Your task to perform on an android device: find which apps use the phone's location Image 0: 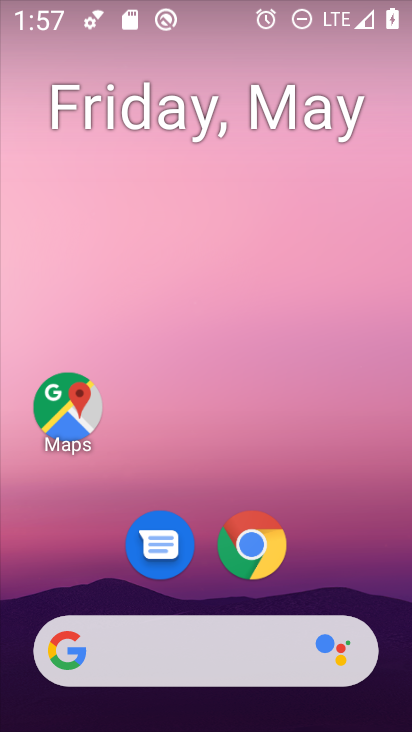
Step 0: drag from (334, 569) to (345, 223)
Your task to perform on an android device: find which apps use the phone's location Image 1: 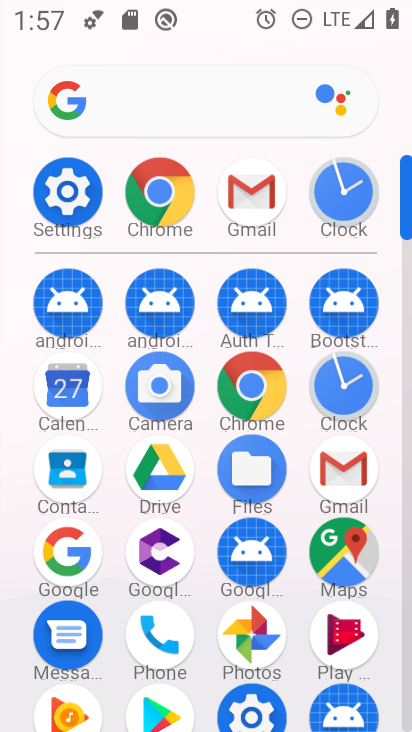
Step 1: click (62, 188)
Your task to perform on an android device: find which apps use the phone's location Image 2: 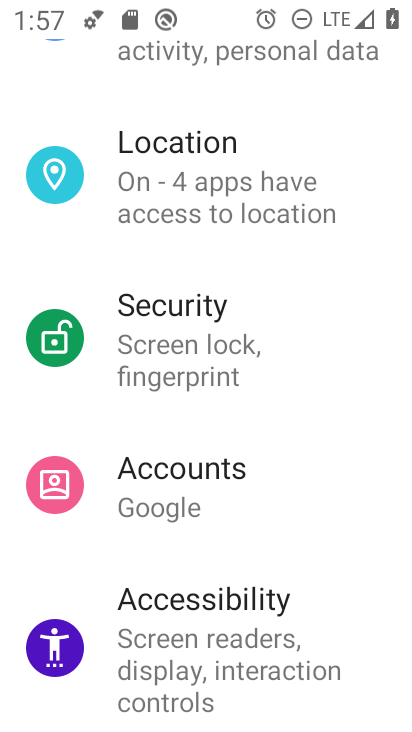
Step 2: click (184, 193)
Your task to perform on an android device: find which apps use the phone's location Image 3: 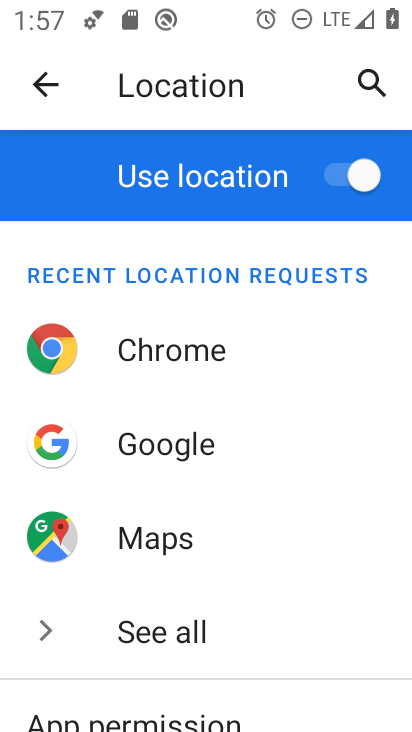
Step 3: task complete